Your task to perform on an android device: Show the shopping cart on target.com. Image 0: 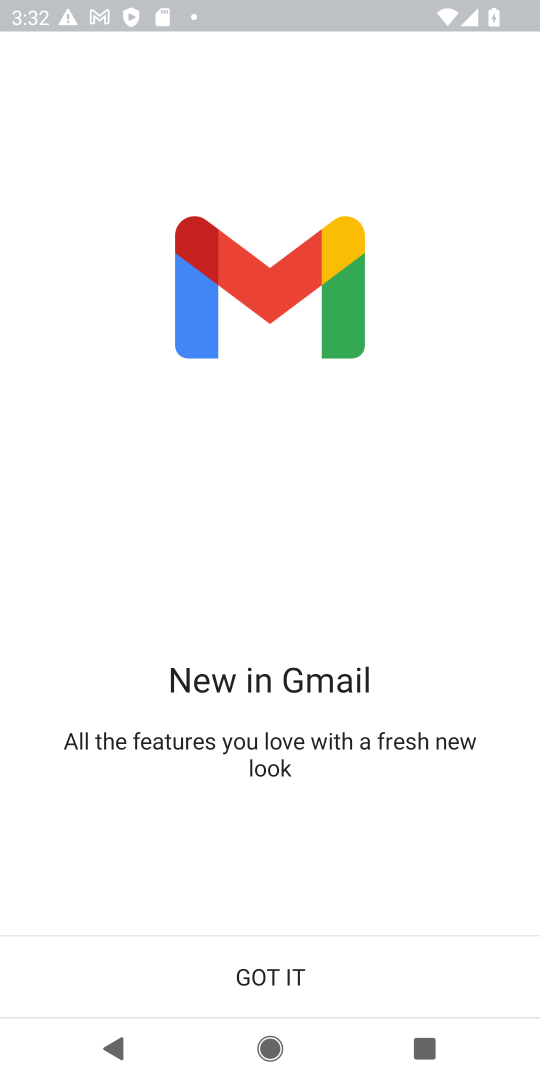
Step 0: press home button
Your task to perform on an android device: Show the shopping cart on target.com. Image 1: 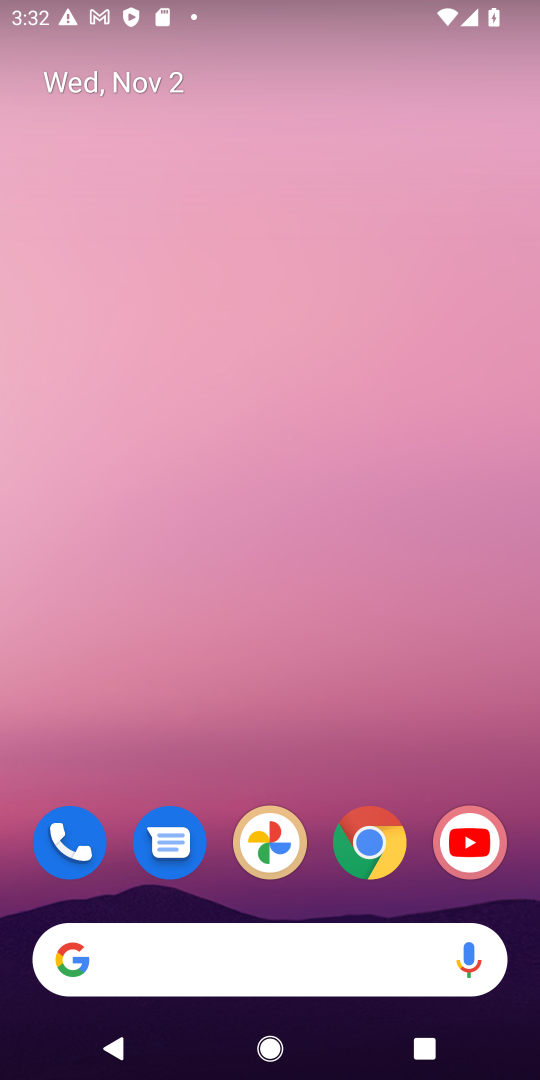
Step 1: click (365, 840)
Your task to perform on an android device: Show the shopping cart on target.com. Image 2: 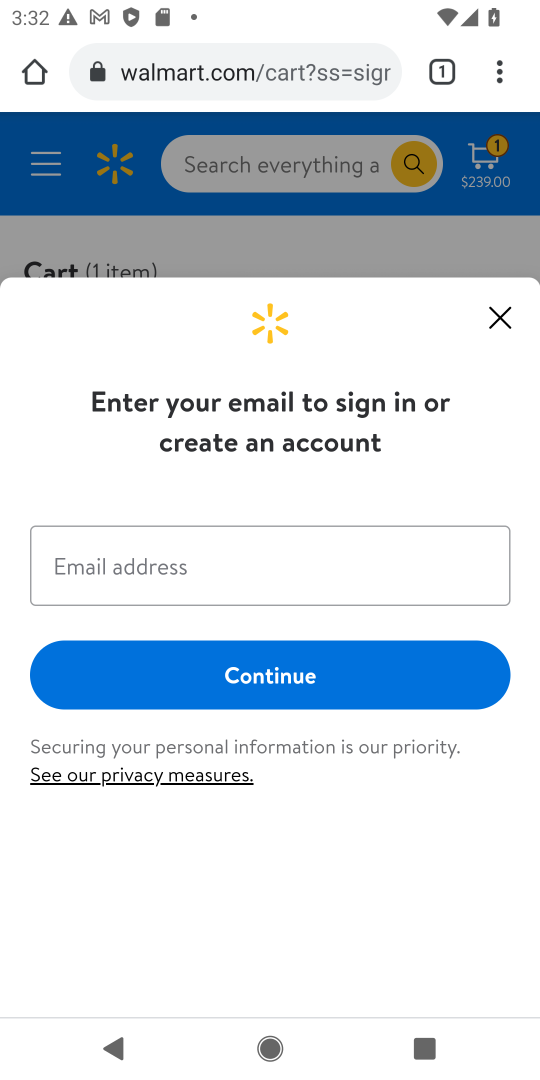
Step 2: click (235, 82)
Your task to perform on an android device: Show the shopping cart on target.com. Image 3: 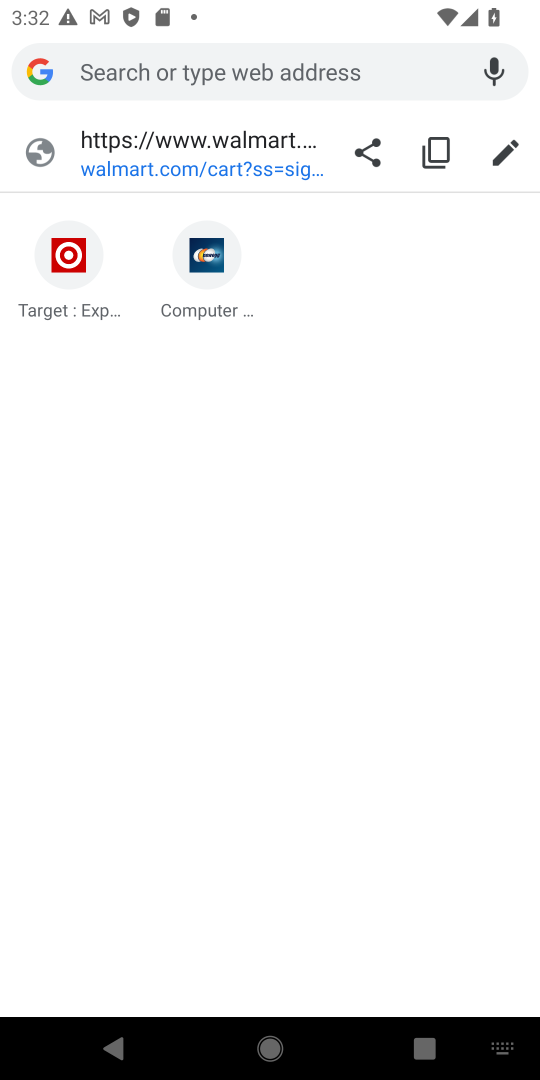
Step 3: type "target.com"
Your task to perform on an android device: Show the shopping cart on target.com. Image 4: 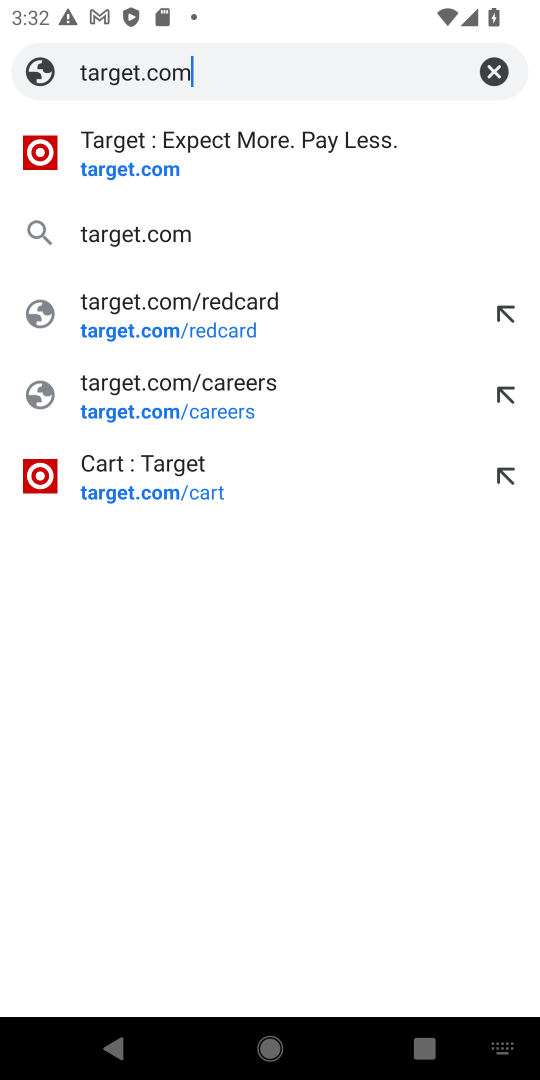
Step 4: click (224, 165)
Your task to perform on an android device: Show the shopping cart on target.com. Image 5: 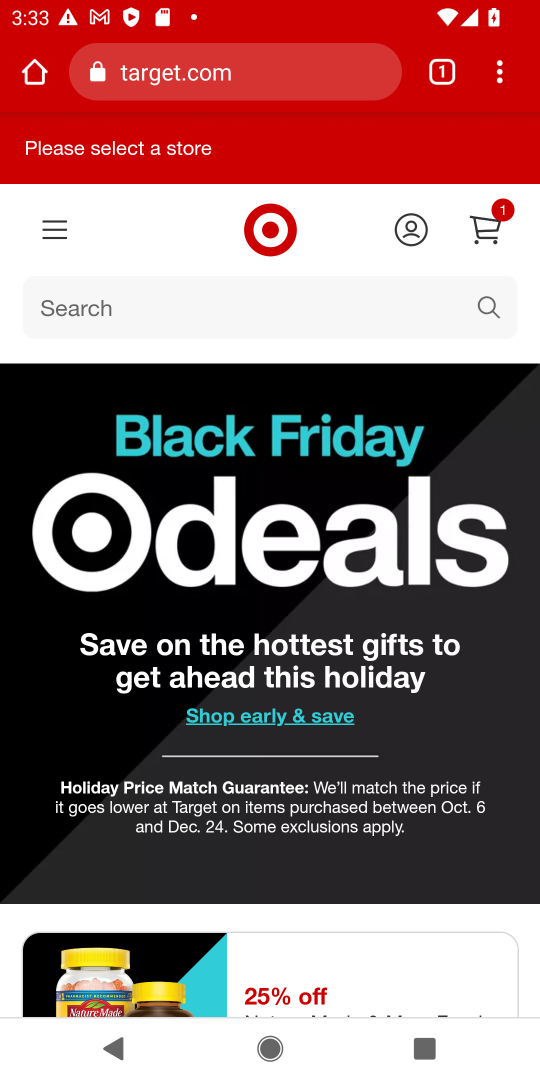
Step 5: click (489, 232)
Your task to perform on an android device: Show the shopping cart on target.com. Image 6: 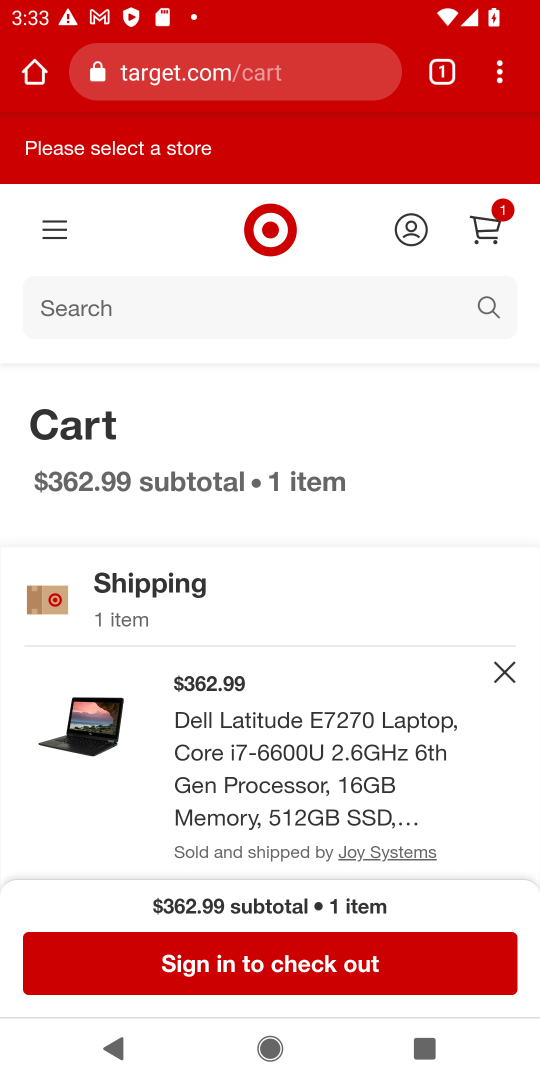
Step 6: task complete